Your task to perform on an android device: Set the phone to "Do not disturb". Image 0: 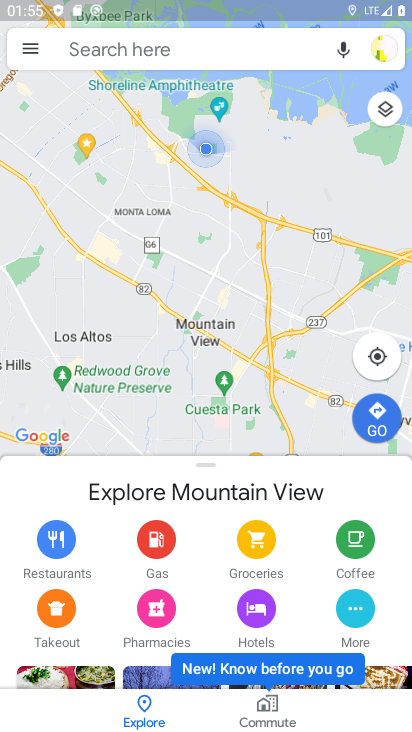
Step 0: press home button
Your task to perform on an android device: Set the phone to "Do not disturb". Image 1: 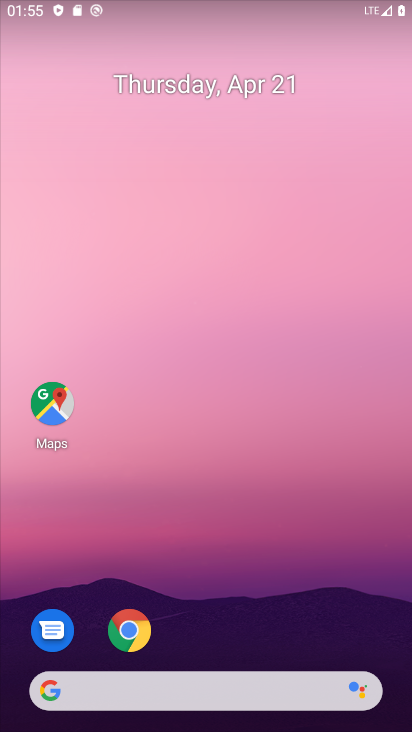
Step 1: drag from (219, 605) to (235, 110)
Your task to perform on an android device: Set the phone to "Do not disturb". Image 2: 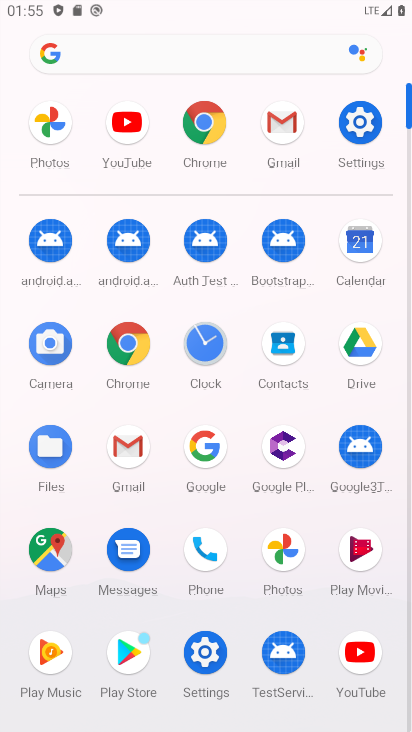
Step 2: click (362, 146)
Your task to perform on an android device: Set the phone to "Do not disturb". Image 3: 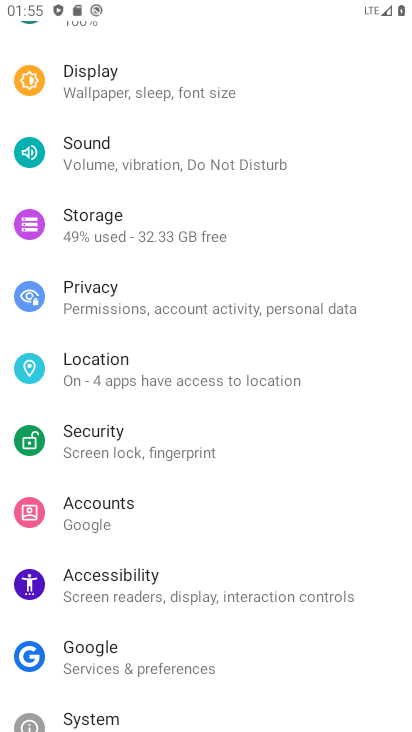
Step 3: drag from (189, 615) to (192, 503)
Your task to perform on an android device: Set the phone to "Do not disturb". Image 4: 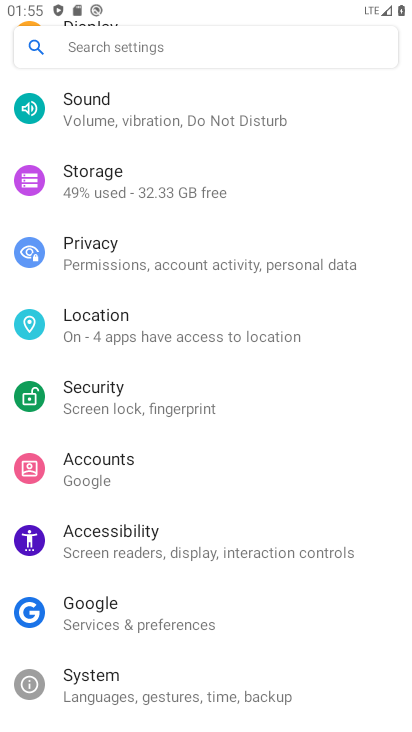
Step 4: click (225, 124)
Your task to perform on an android device: Set the phone to "Do not disturb". Image 5: 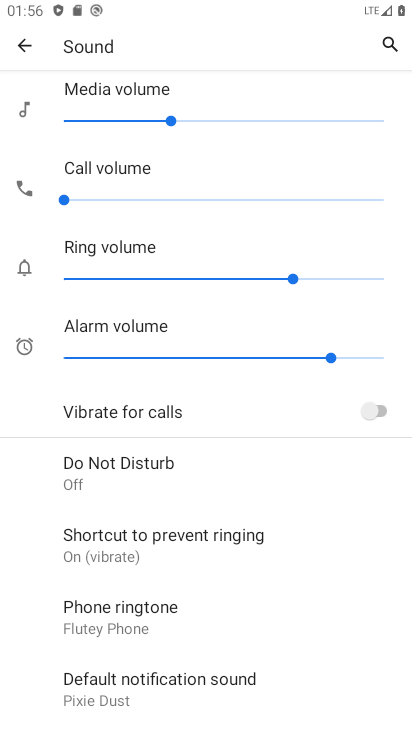
Step 5: click (209, 478)
Your task to perform on an android device: Set the phone to "Do not disturb". Image 6: 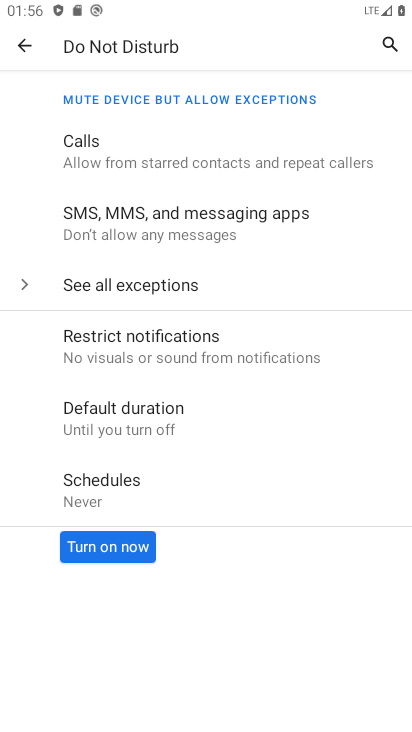
Step 6: click (126, 544)
Your task to perform on an android device: Set the phone to "Do not disturb". Image 7: 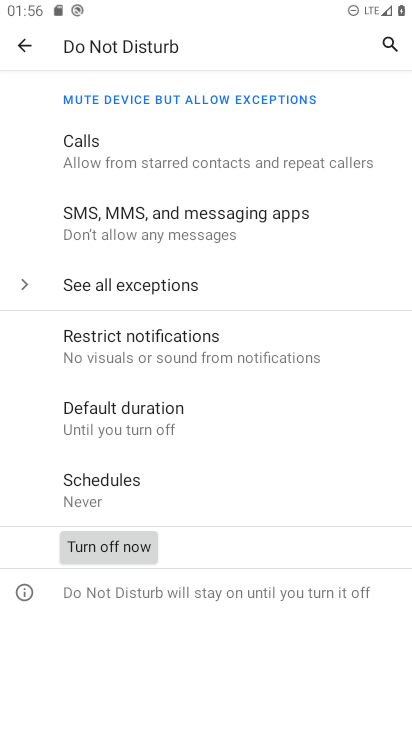
Step 7: task complete